Your task to perform on an android device: change keyboard looks Image 0: 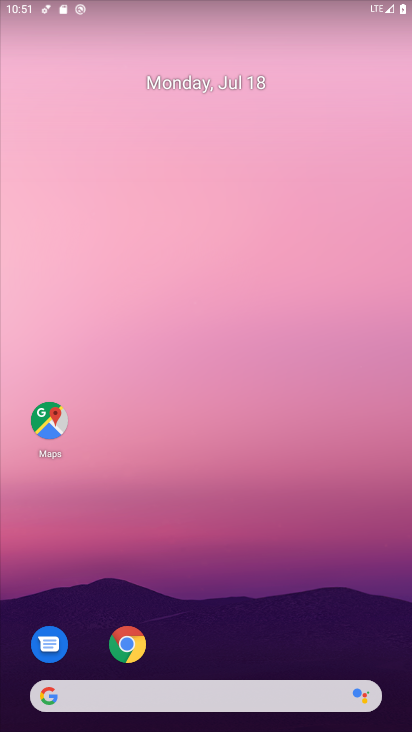
Step 0: drag from (337, 630) to (359, 95)
Your task to perform on an android device: change keyboard looks Image 1: 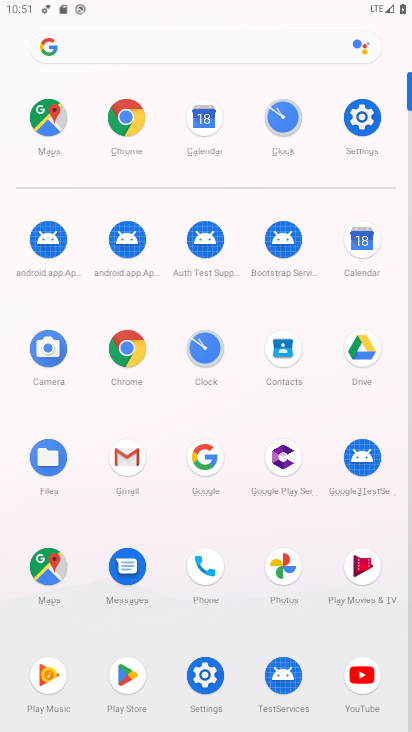
Step 1: click (364, 124)
Your task to perform on an android device: change keyboard looks Image 2: 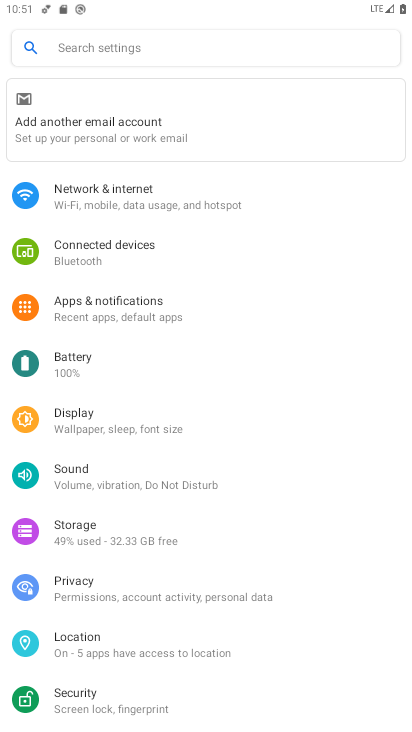
Step 2: drag from (341, 393) to (340, 323)
Your task to perform on an android device: change keyboard looks Image 3: 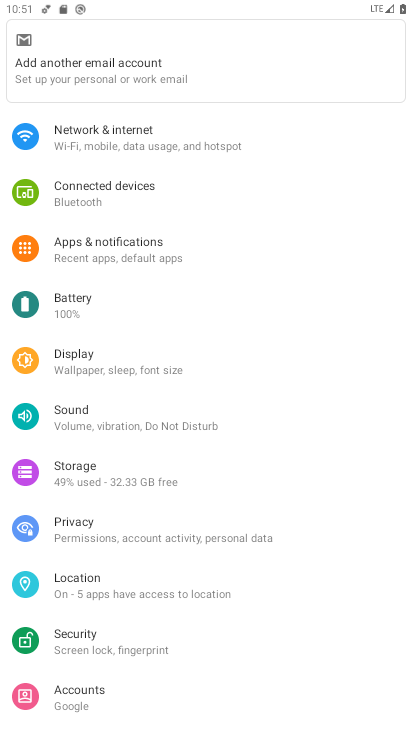
Step 3: drag from (323, 436) to (331, 380)
Your task to perform on an android device: change keyboard looks Image 4: 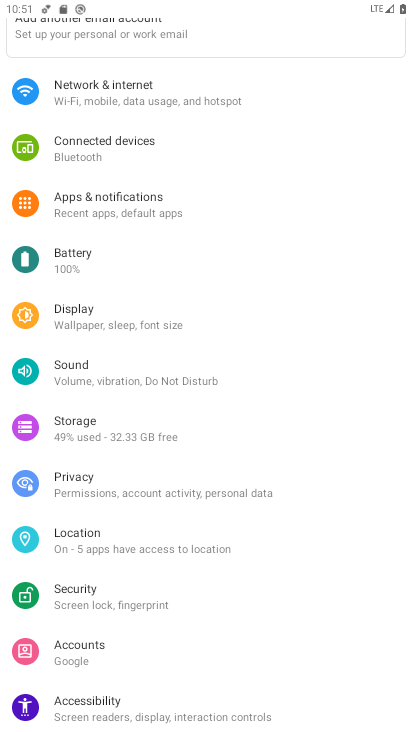
Step 4: drag from (328, 466) to (333, 339)
Your task to perform on an android device: change keyboard looks Image 5: 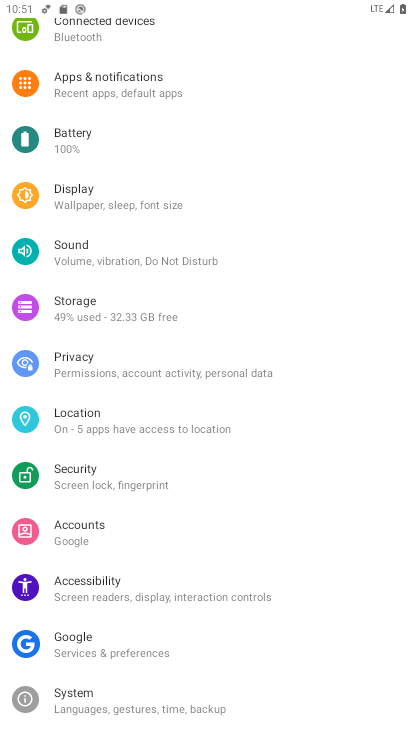
Step 5: drag from (324, 451) to (337, 386)
Your task to perform on an android device: change keyboard looks Image 6: 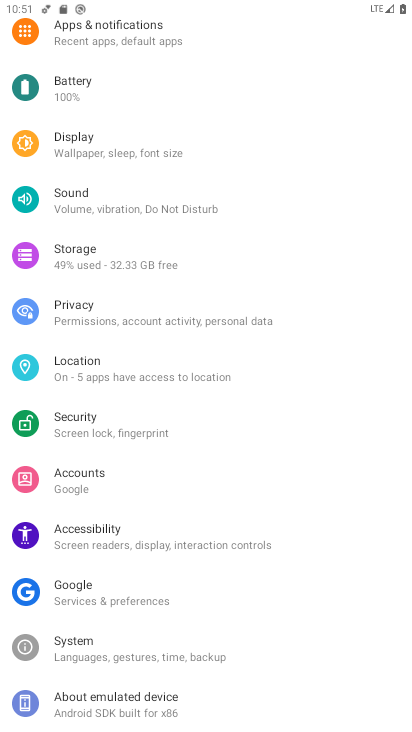
Step 6: drag from (320, 473) to (330, 407)
Your task to perform on an android device: change keyboard looks Image 7: 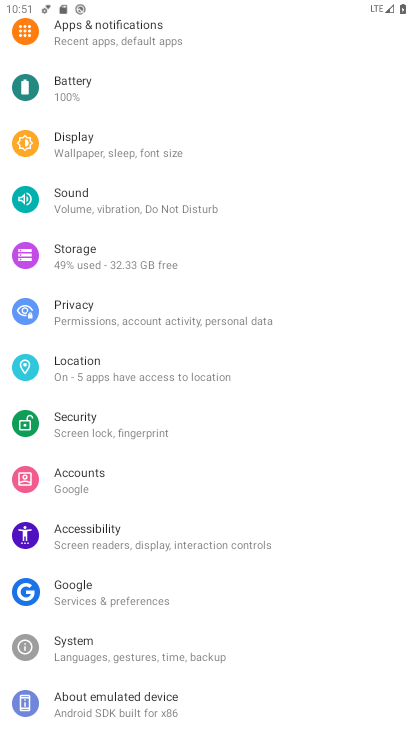
Step 7: click (241, 654)
Your task to perform on an android device: change keyboard looks Image 8: 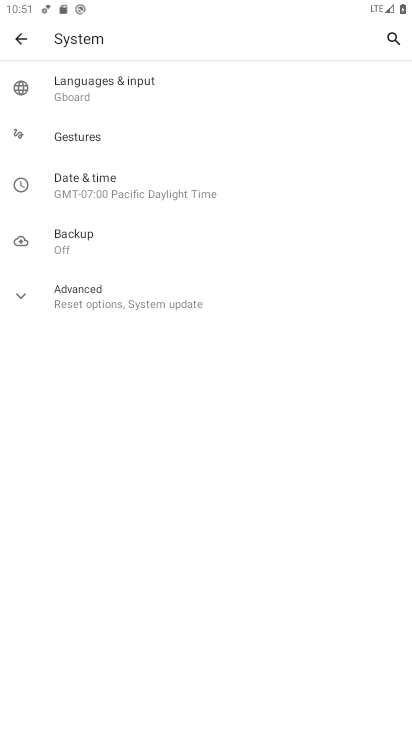
Step 8: click (142, 96)
Your task to perform on an android device: change keyboard looks Image 9: 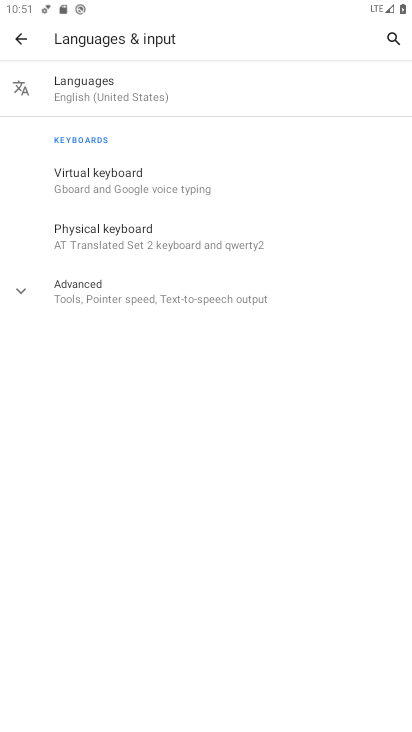
Step 9: click (156, 178)
Your task to perform on an android device: change keyboard looks Image 10: 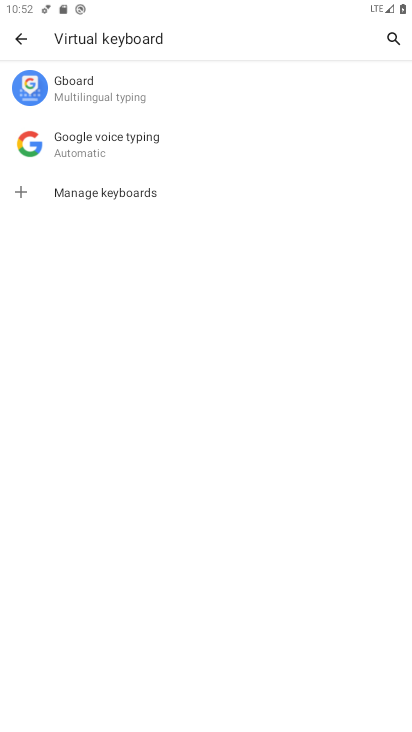
Step 10: click (130, 94)
Your task to perform on an android device: change keyboard looks Image 11: 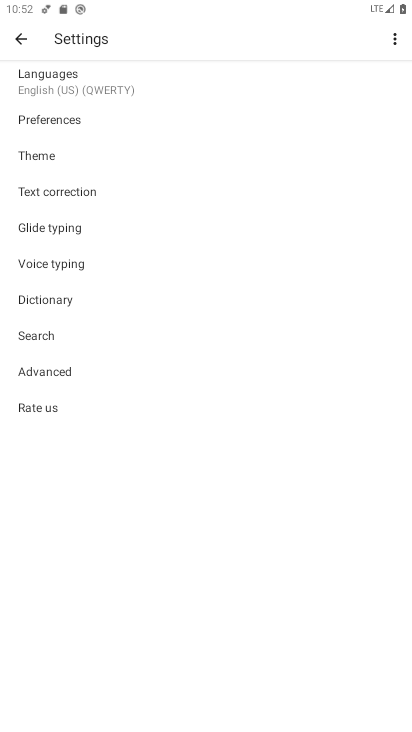
Step 11: click (74, 151)
Your task to perform on an android device: change keyboard looks Image 12: 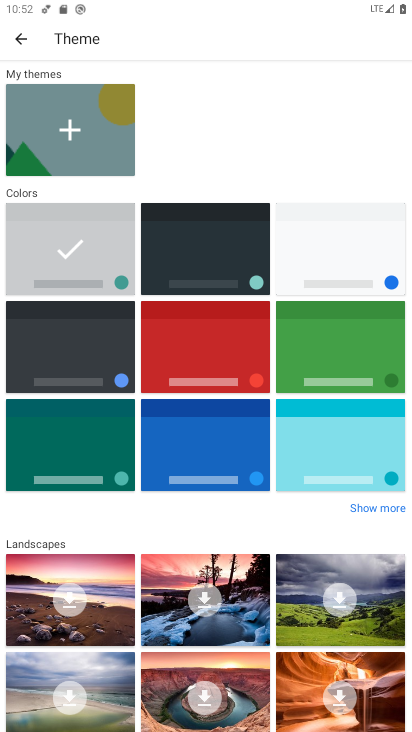
Step 12: click (333, 349)
Your task to perform on an android device: change keyboard looks Image 13: 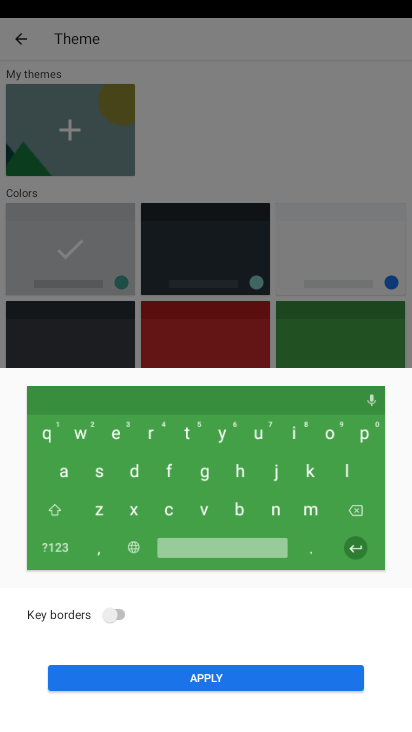
Step 13: click (266, 683)
Your task to perform on an android device: change keyboard looks Image 14: 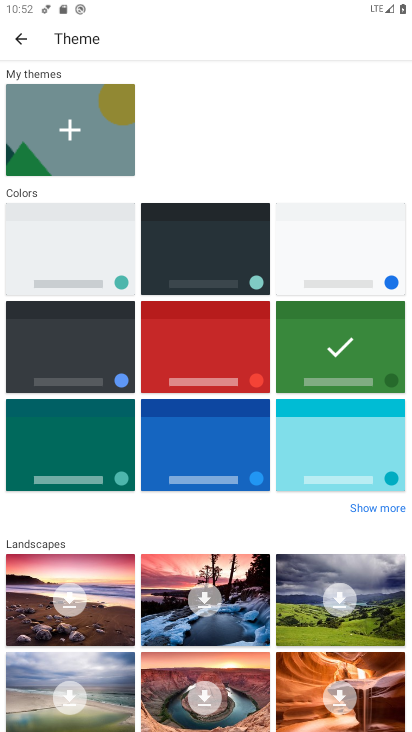
Step 14: task complete